Your task to perform on an android device: Check the weather Image 0: 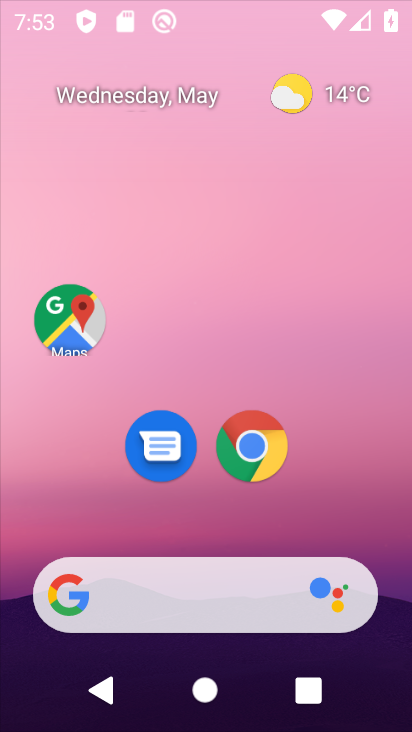
Step 0: drag from (318, 354) to (311, 120)
Your task to perform on an android device: Check the weather Image 1: 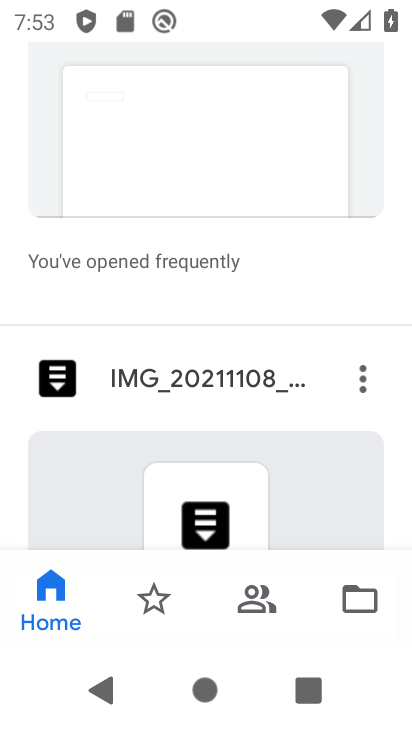
Step 1: press home button
Your task to perform on an android device: Check the weather Image 2: 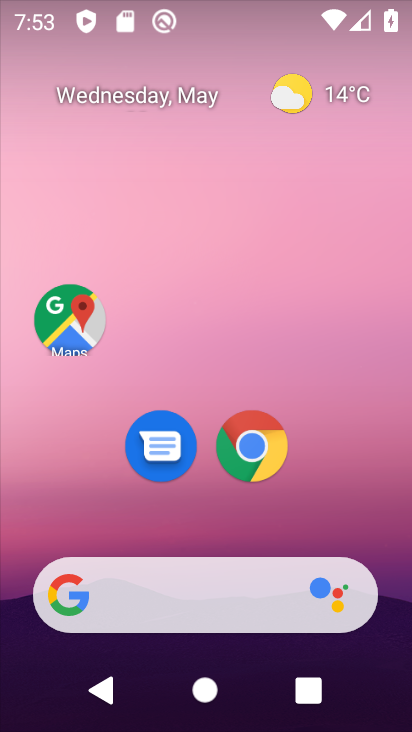
Step 2: click (245, 459)
Your task to perform on an android device: Check the weather Image 3: 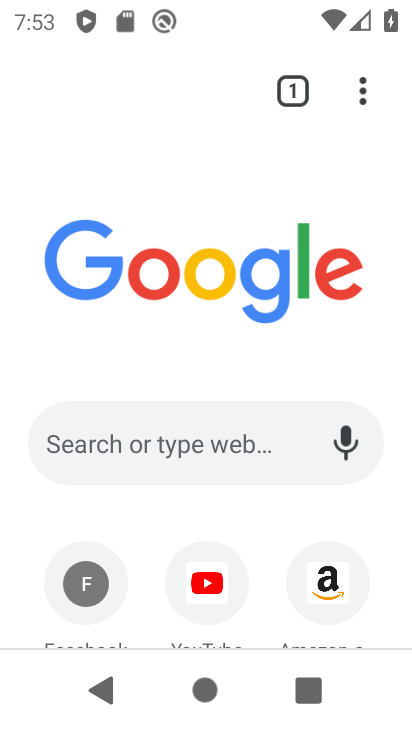
Step 3: click (142, 448)
Your task to perform on an android device: Check the weather Image 4: 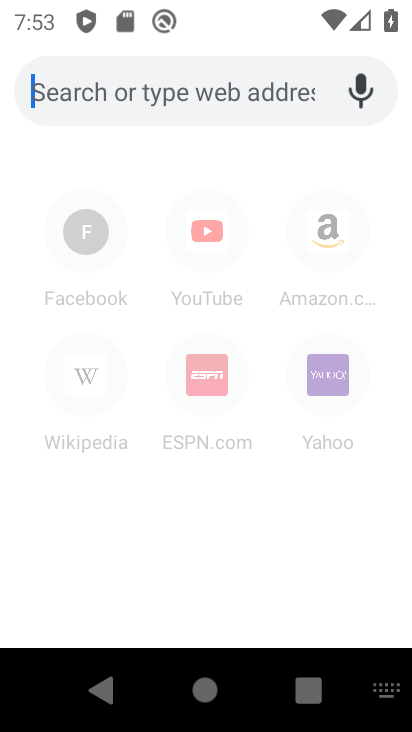
Step 4: type "check the weather"
Your task to perform on an android device: Check the weather Image 5: 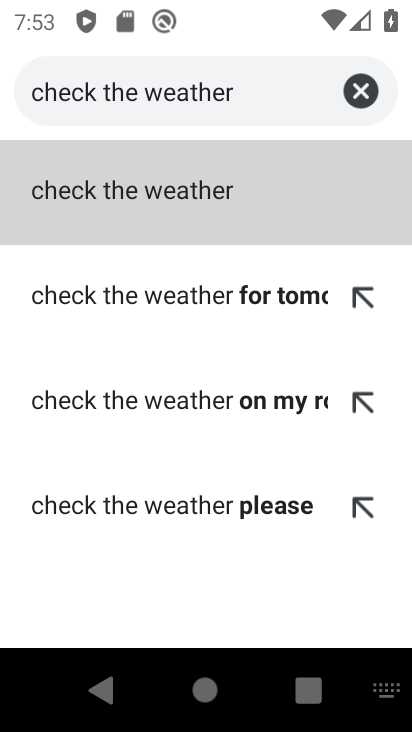
Step 5: click (140, 220)
Your task to perform on an android device: Check the weather Image 6: 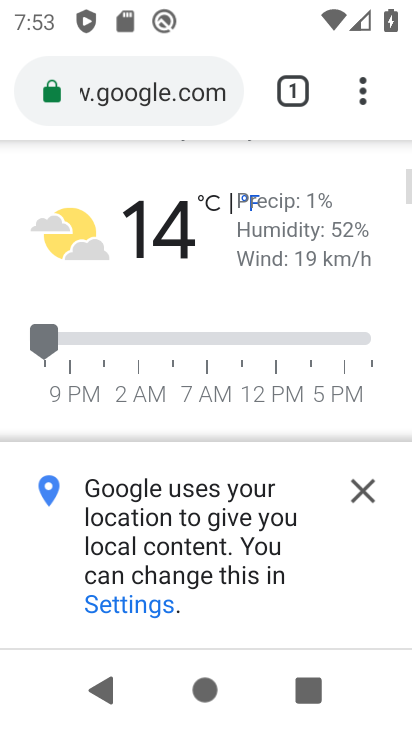
Step 6: click (370, 480)
Your task to perform on an android device: Check the weather Image 7: 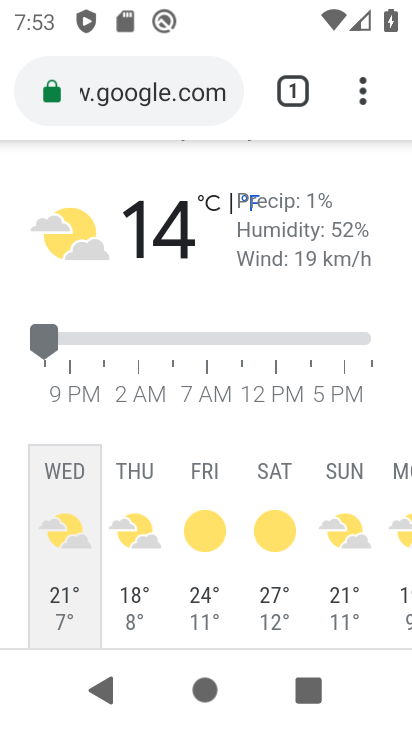
Step 7: task complete